Your task to perform on an android device: See recent photos Image 0: 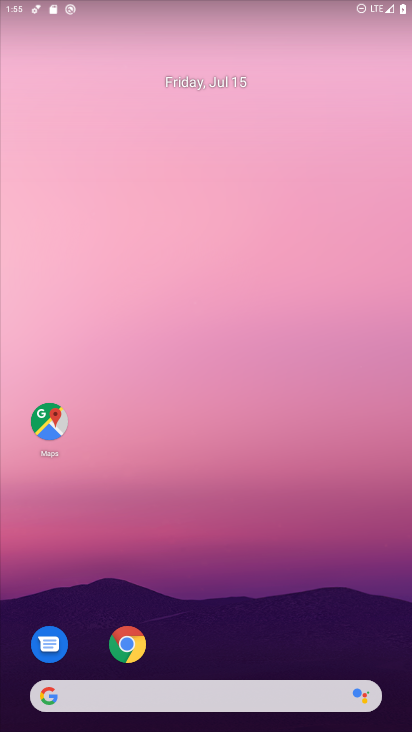
Step 0: drag from (63, 553) to (209, 87)
Your task to perform on an android device: See recent photos Image 1: 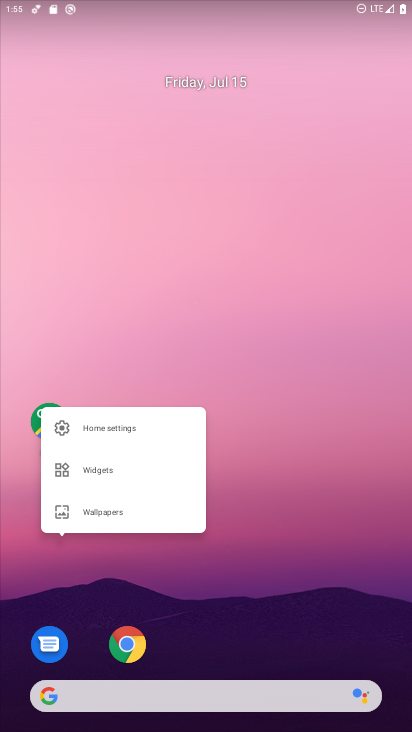
Step 1: press home button
Your task to perform on an android device: See recent photos Image 2: 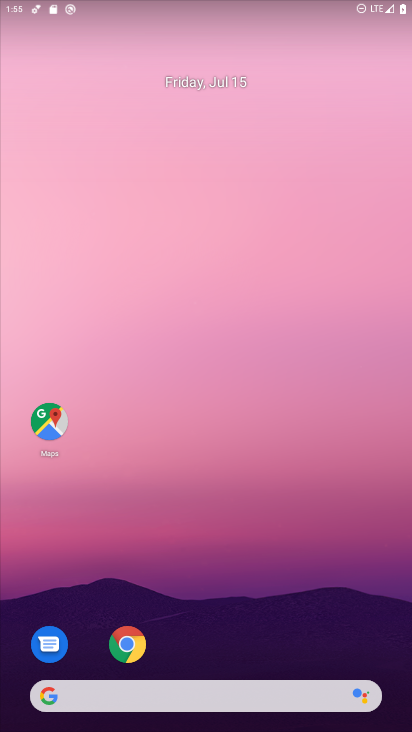
Step 2: drag from (73, 488) to (257, 117)
Your task to perform on an android device: See recent photos Image 3: 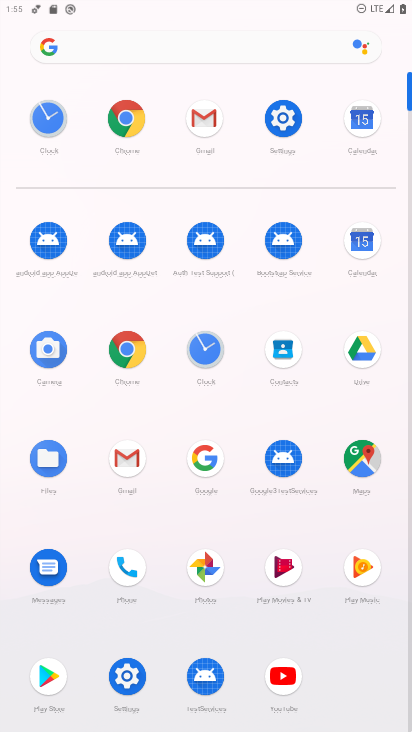
Step 3: click (205, 562)
Your task to perform on an android device: See recent photos Image 4: 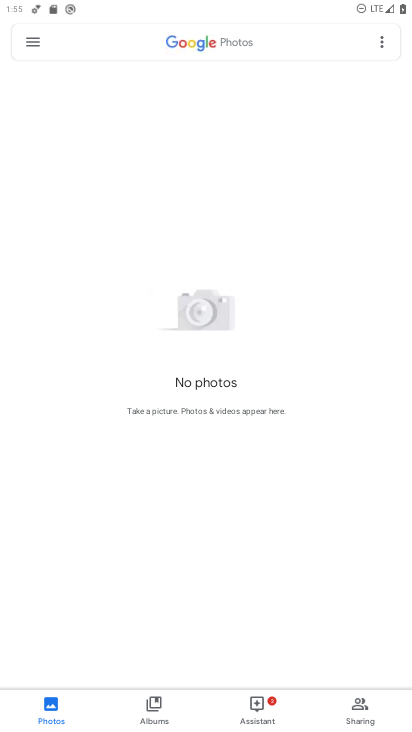
Step 4: click (45, 720)
Your task to perform on an android device: See recent photos Image 5: 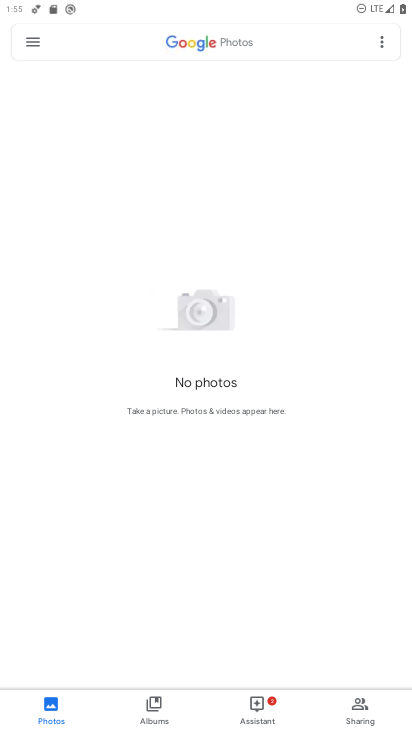
Step 5: task complete